Your task to perform on an android device: Toggle the flashlight Image 0: 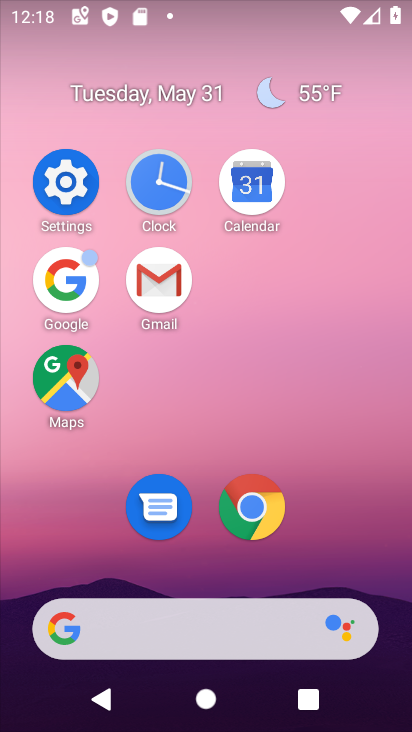
Step 0: drag from (267, 0) to (242, 348)
Your task to perform on an android device: Toggle the flashlight Image 1: 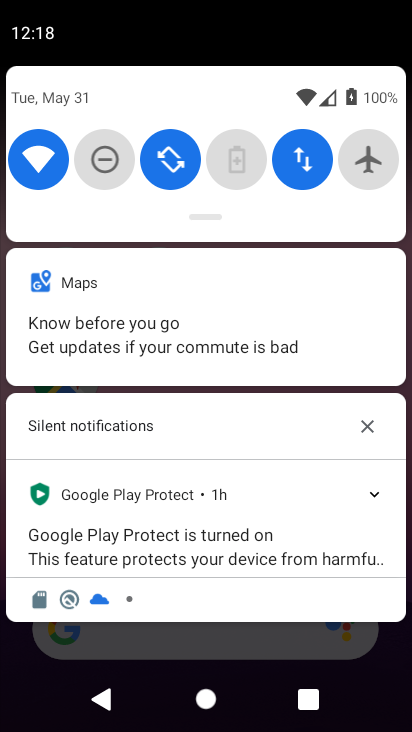
Step 1: task complete